Your task to perform on an android device: Go to display settings Image 0: 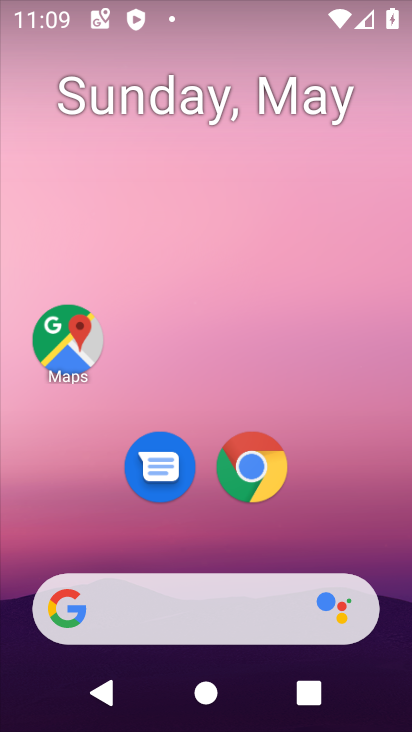
Step 0: drag from (392, 581) to (408, 227)
Your task to perform on an android device: Go to display settings Image 1: 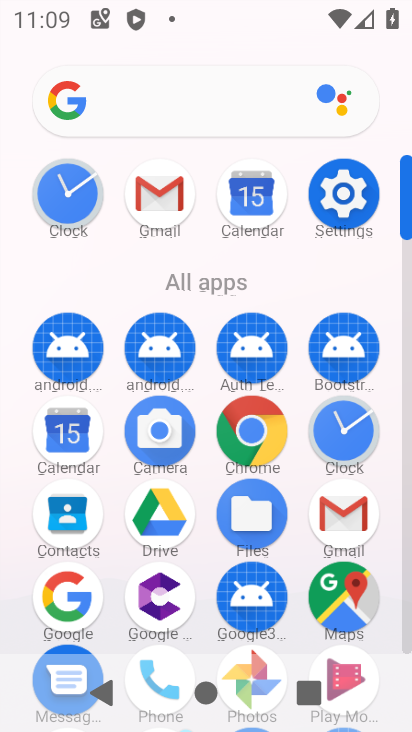
Step 1: click (347, 211)
Your task to perform on an android device: Go to display settings Image 2: 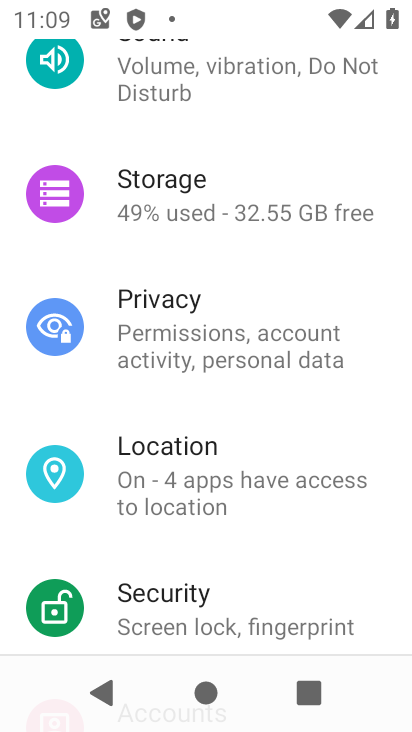
Step 2: drag from (374, 278) to (393, 572)
Your task to perform on an android device: Go to display settings Image 3: 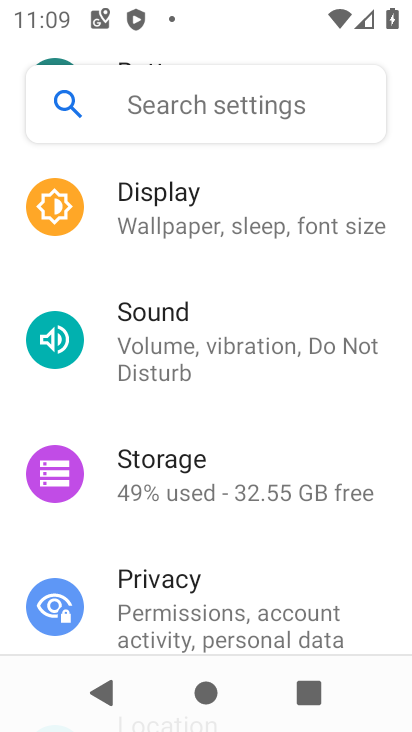
Step 3: click (155, 225)
Your task to perform on an android device: Go to display settings Image 4: 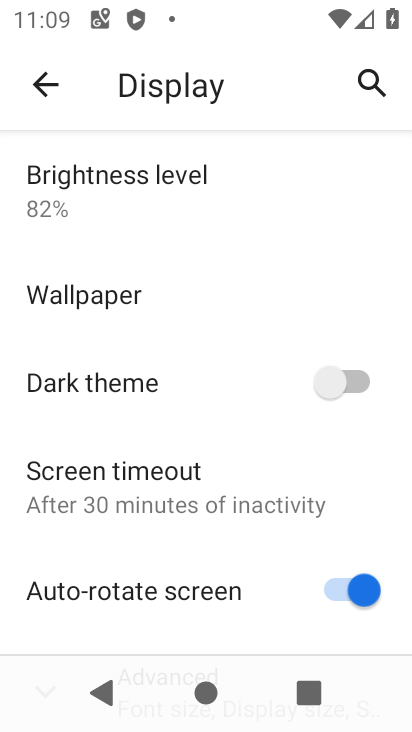
Step 4: task complete